Your task to perform on an android device: check data usage Image 0: 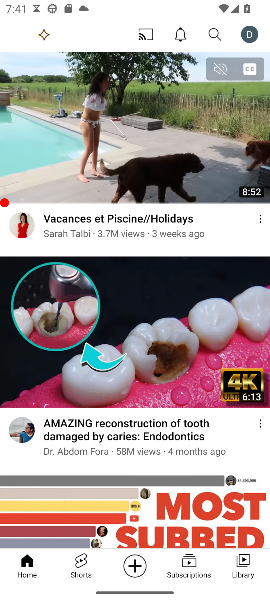
Step 0: press home button
Your task to perform on an android device: check data usage Image 1: 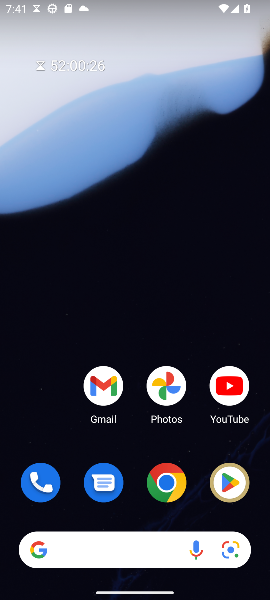
Step 1: drag from (167, 330) to (177, 26)
Your task to perform on an android device: check data usage Image 2: 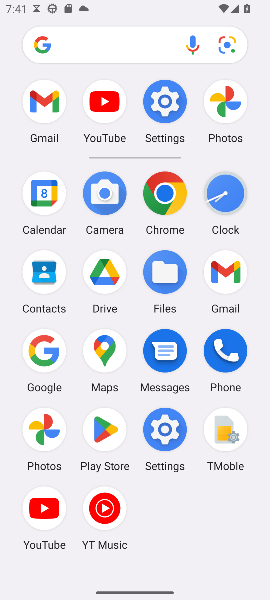
Step 2: click (160, 100)
Your task to perform on an android device: check data usage Image 3: 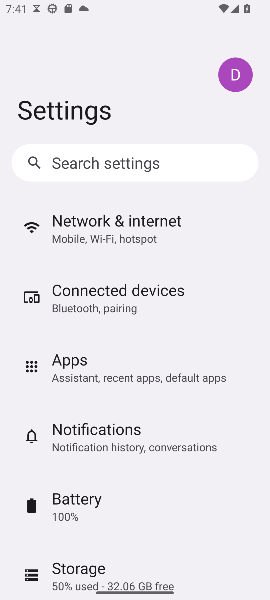
Step 3: click (143, 222)
Your task to perform on an android device: check data usage Image 4: 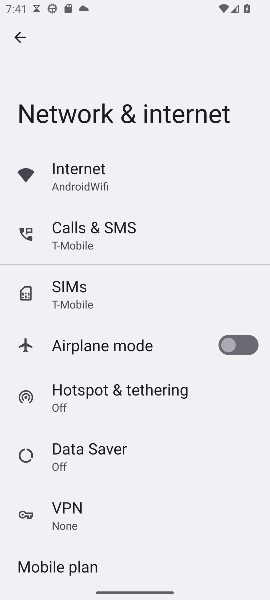
Step 4: click (75, 165)
Your task to perform on an android device: check data usage Image 5: 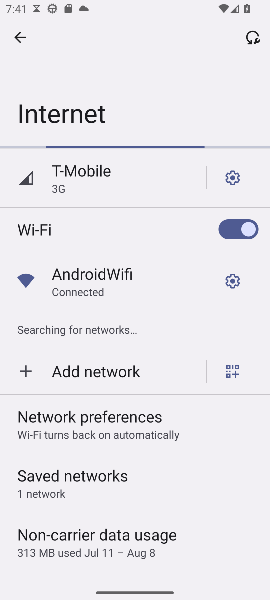
Step 5: click (70, 178)
Your task to perform on an android device: check data usage Image 6: 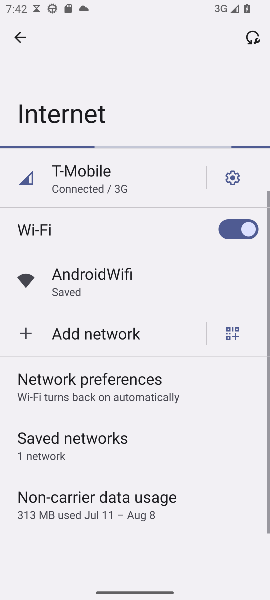
Step 6: click (68, 176)
Your task to perform on an android device: check data usage Image 7: 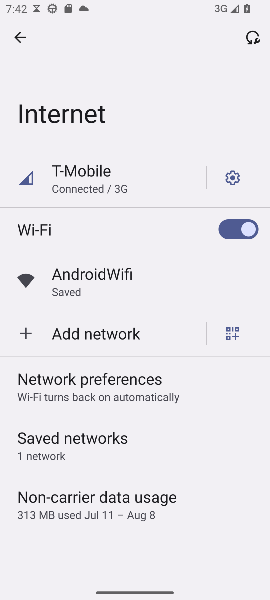
Step 7: click (226, 181)
Your task to perform on an android device: check data usage Image 8: 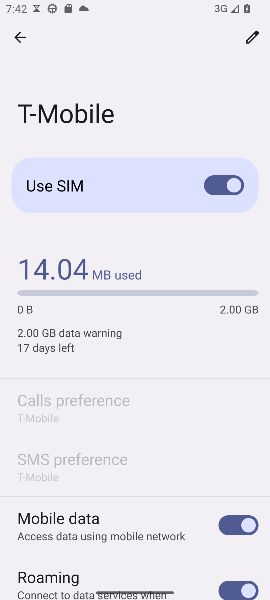
Step 8: task complete